Your task to perform on an android device: Open settings on Google Maps Image 0: 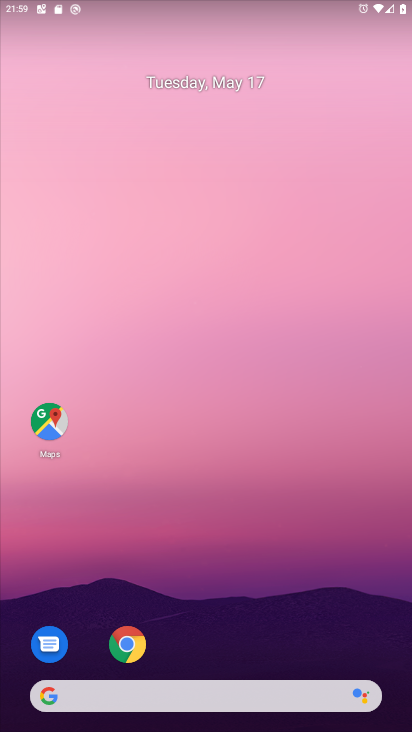
Step 0: press home button
Your task to perform on an android device: Open settings on Google Maps Image 1: 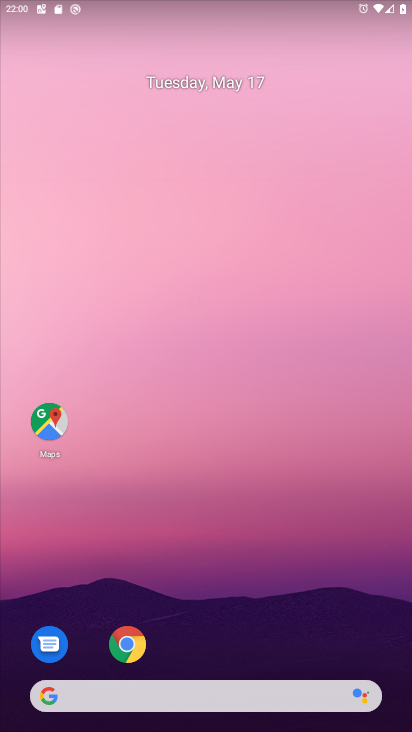
Step 1: click (49, 416)
Your task to perform on an android device: Open settings on Google Maps Image 2: 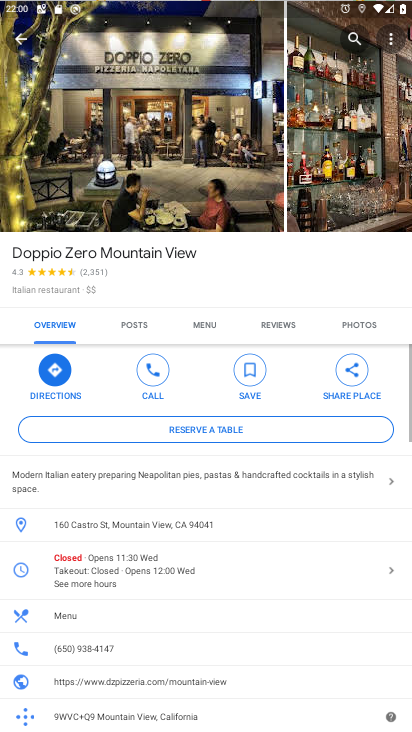
Step 2: click (18, 42)
Your task to perform on an android device: Open settings on Google Maps Image 3: 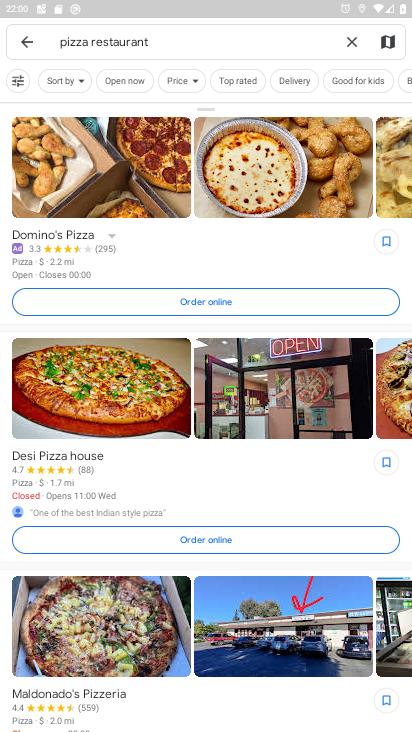
Step 3: click (24, 34)
Your task to perform on an android device: Open settings on Google Maps Image 4: 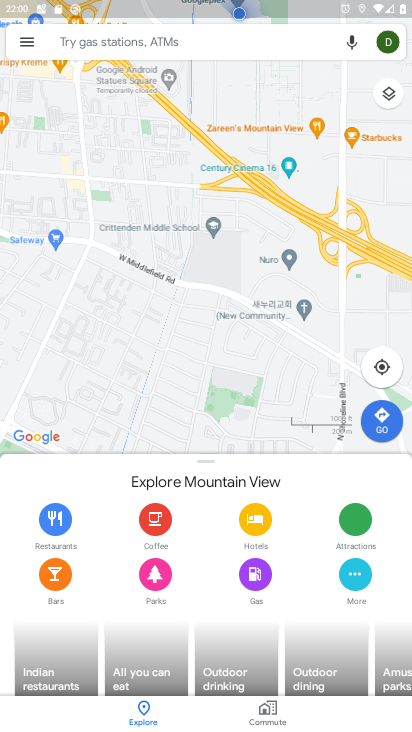
Step 4: click (25, 44)
Your task to perform on an android device: Open settings on Google Maps Image 5: 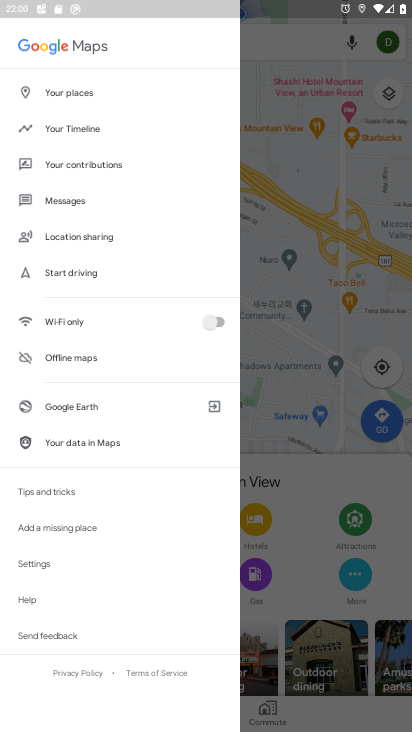
Step 5: click (52, 562)
Your task to perform on an android device: Open settings on Google Maps Image 6: 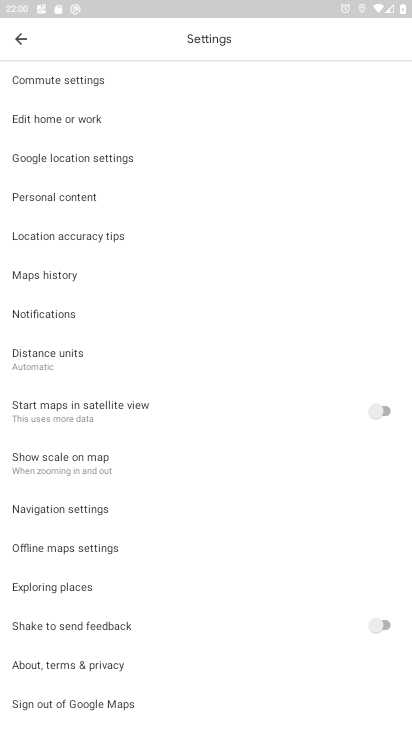
Step 6: click (145, 152)
Your task to perform on an android device: Open settings on Google Maps Image 7: 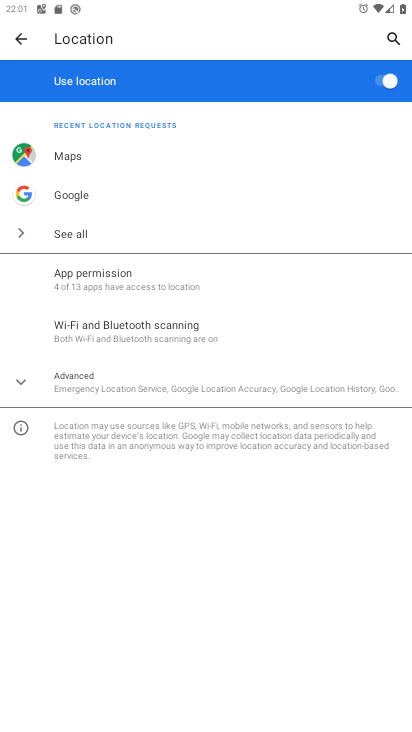
Step 7: task complete